Your task to perform on an android device: Go to internet settings Image 0: 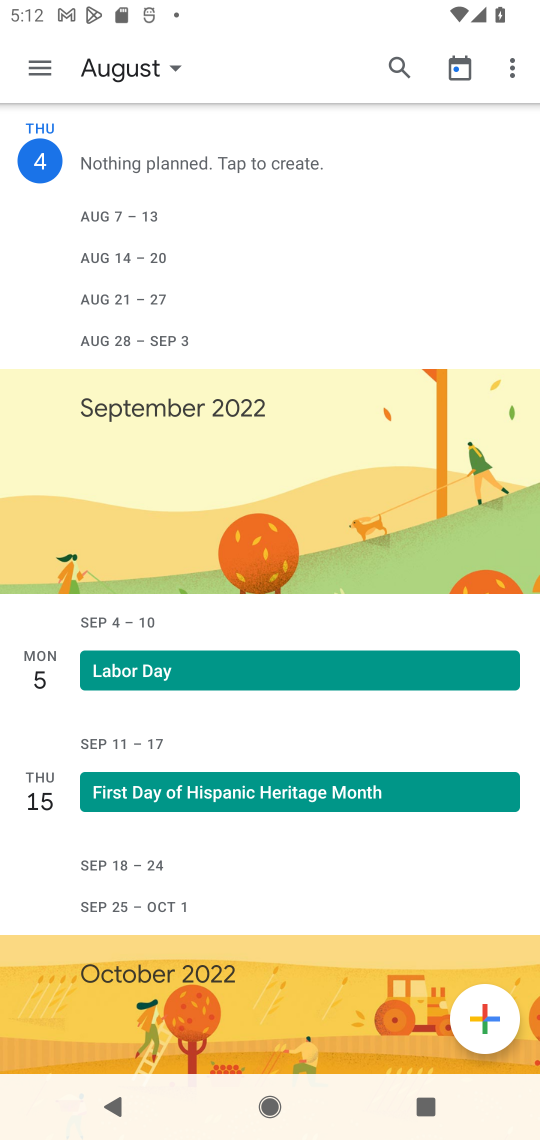
Step 0: press home button
Your task to perform on an android device: Go to internet settings Image 1: 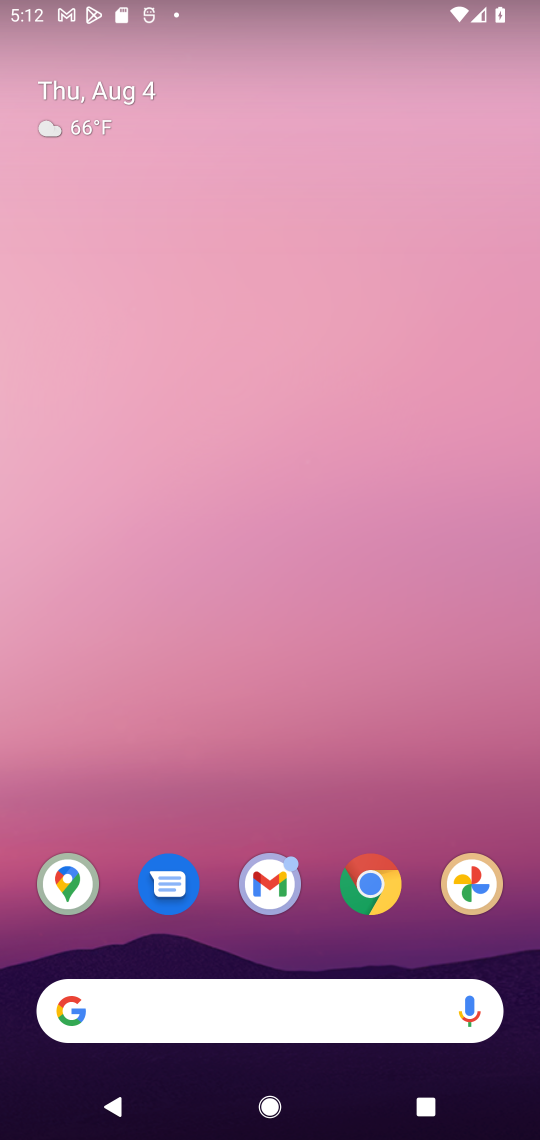
Step 1: drag from (242, 965) to (267, 383)
Your task to perform on an android device: Go to internet settings Image 2: 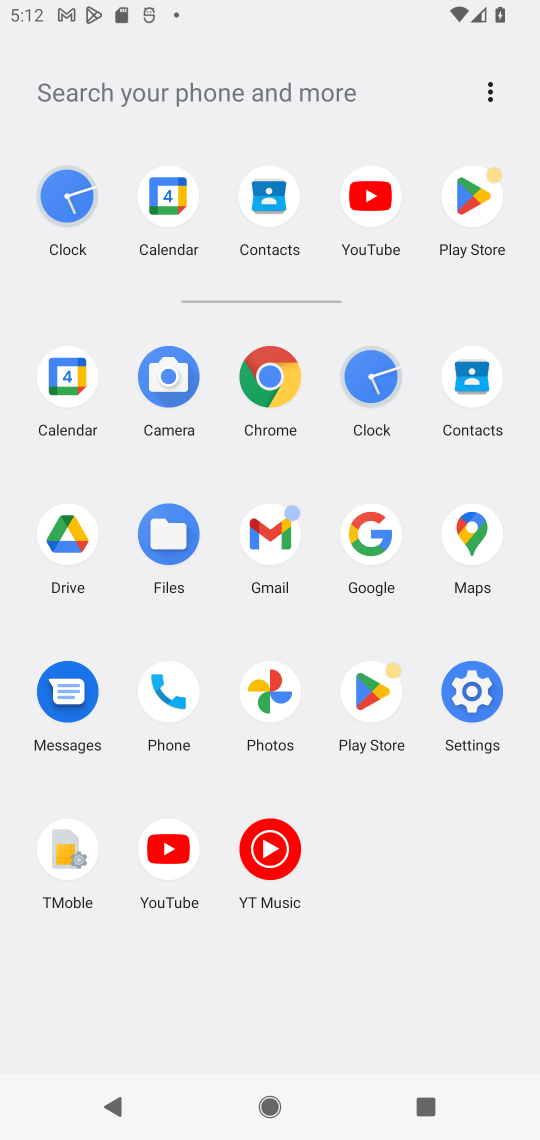
Step 2: click (490, 696)
Your task to perform on an android device: Go to internet settings Image 3: 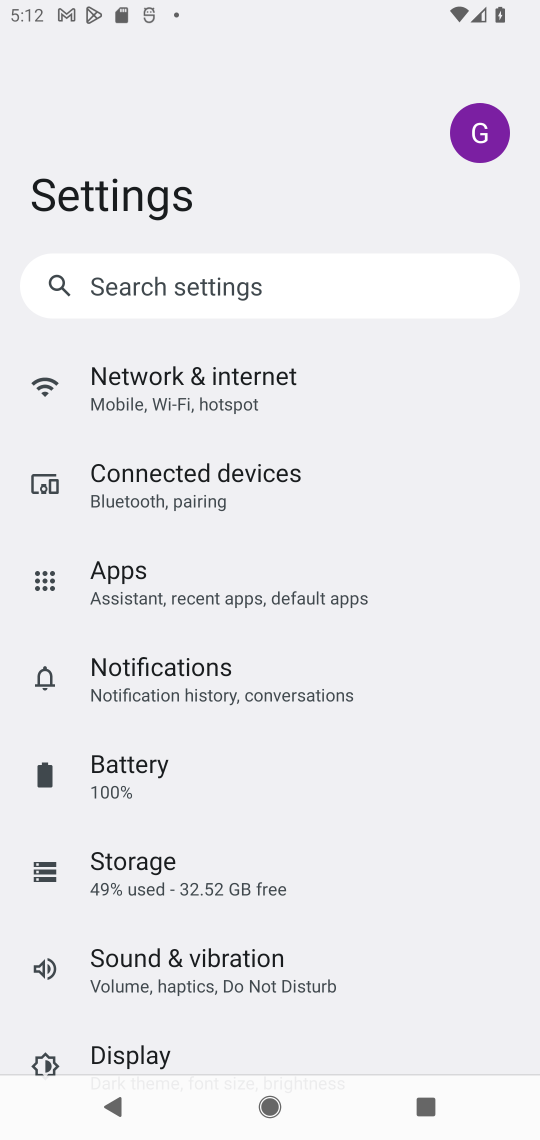
Step 3: click (264, 401)
Your task to perform on an android device: Go to internet settings Image 4: 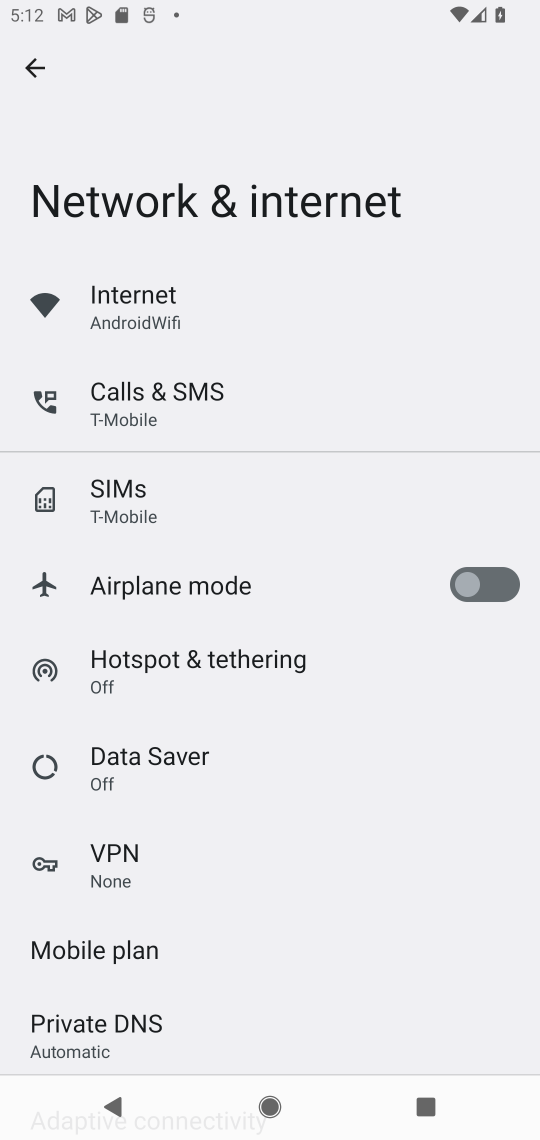
Step 4: click (312, 307)
Your task to perform on an android device: Go to internet settings Image 5: 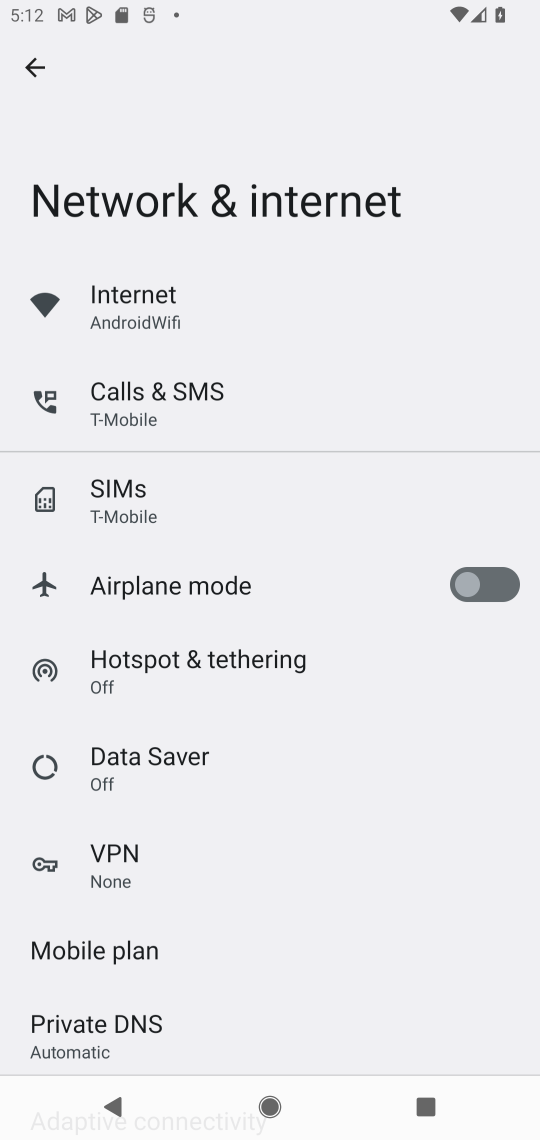
Step 5: task complete